Your task to perform on an android device: Open calendar and show me the fourth week of next month Image 0: 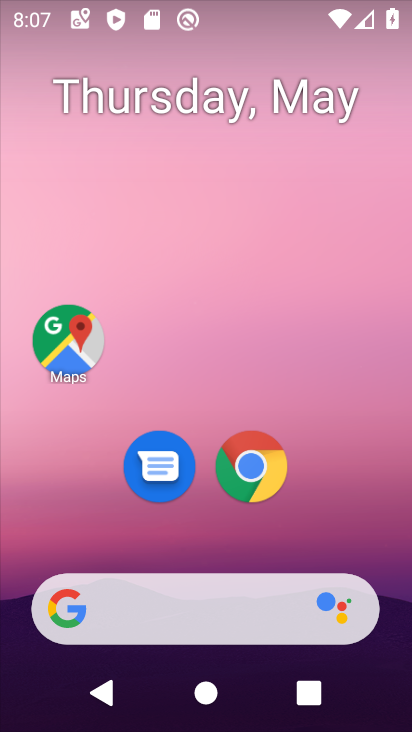
Step 0: drag from (376, 536) to (379, 0)
Your task to perform on an android device: Open calendar and show me the fourth week of next month Image 1: 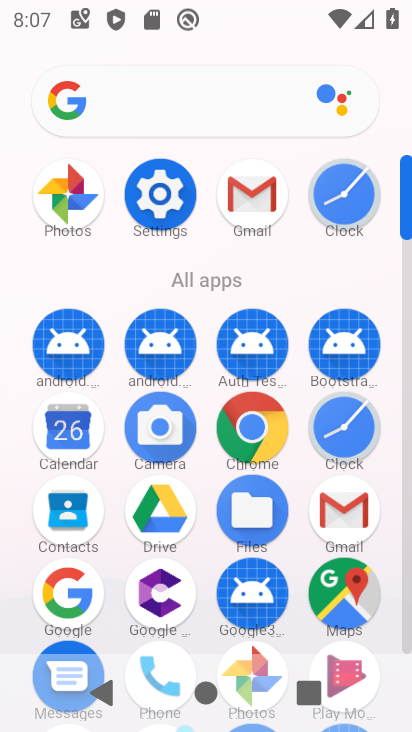
Step 1: click (66, 448)
Your task to perform on an android device: Open calendar and show me the fourth week of next month Image 2: 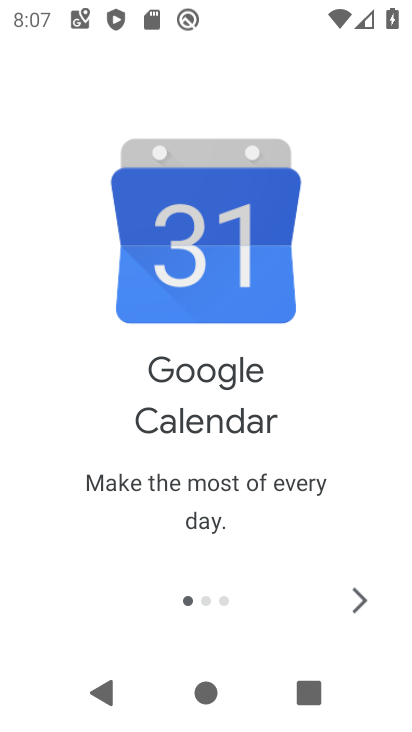
Step 2: click (354, 606)
Your task to perform on an android device: Open calendar and show me the fourth week of next month Image 3: 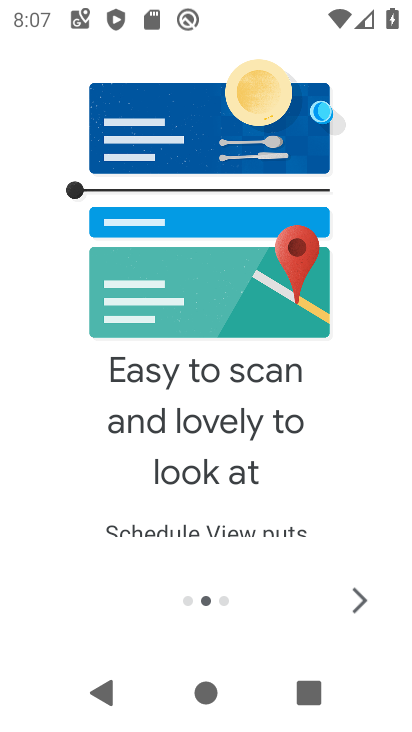
Step 3: click (354, 606)
Your task to perform on an android device: Open calendar and show me the fourth week of next month Image 4: 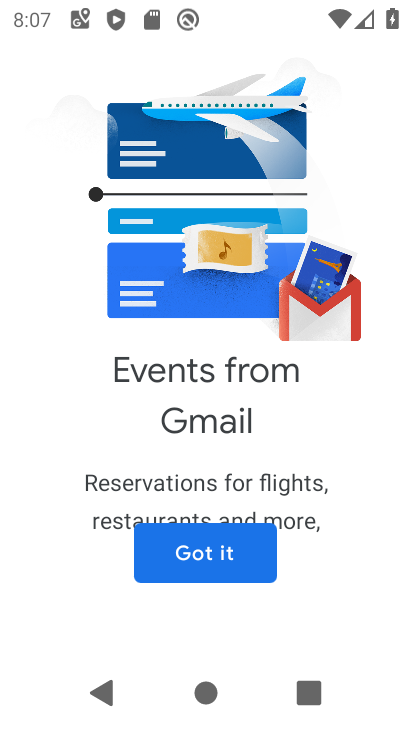
Step 4: click (207, 562)
Your task to perform on an android device: Open calendar and show me the fourth week of next month Image 5: 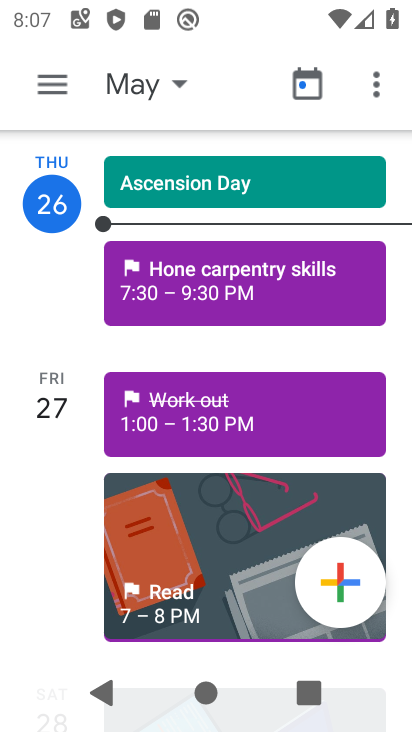
Step 5: click (47, 89)
Your task to perform on an android device: Open calendar and show me the fourth week of next month Image 6: 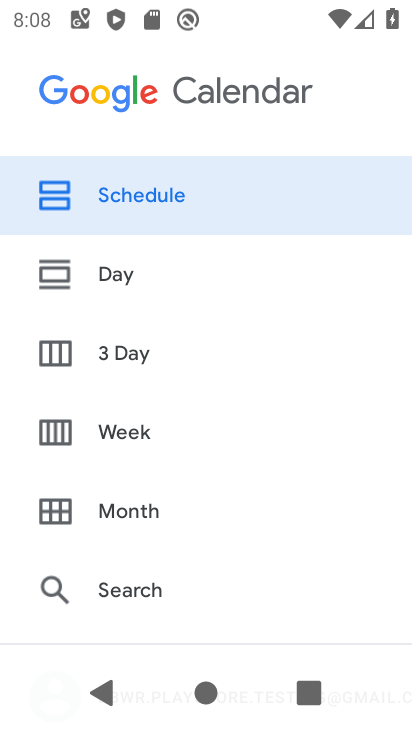
Step 6: click (103, 432)
Your task to perform on an android device: Open calendar and show me the fourth week of next month Image 7: 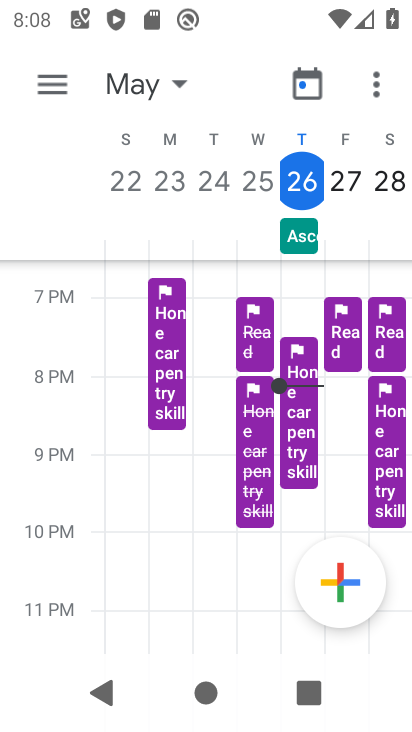
Step 7: click (177, 87)
Your task to perform on an android device: Open calendar and show me the fourth week of next month Image 8: 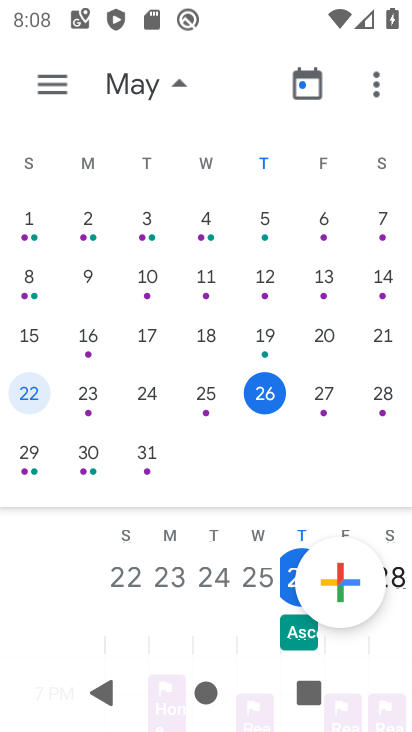
Step 8: task complete